Your task to perform on an android device: Go to Yahoo.com Image 0: 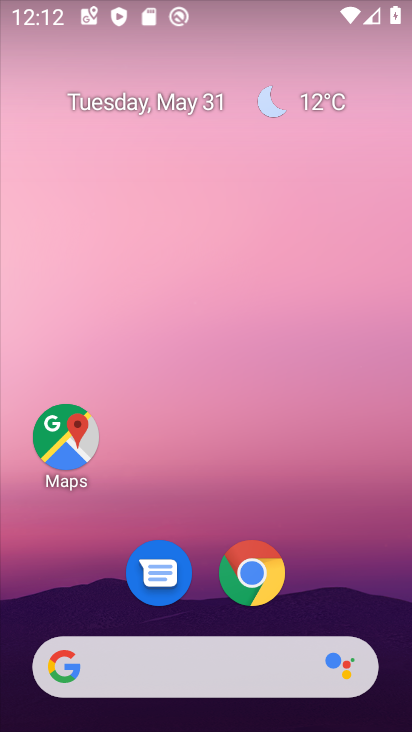
Step 0: drag from (318, 425) to (259, 79)
Your task to perform on an android device: Go to Yahoo.com Image 1: 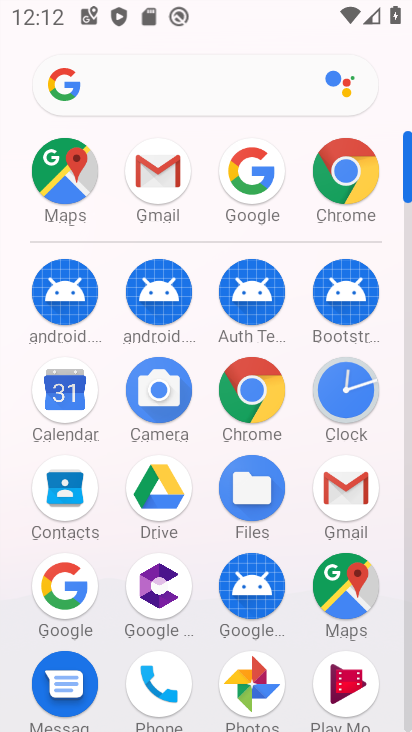
Step 1: click (361, 188)
Your task to perform on an android device: Go to Yahoo.com Image 2: 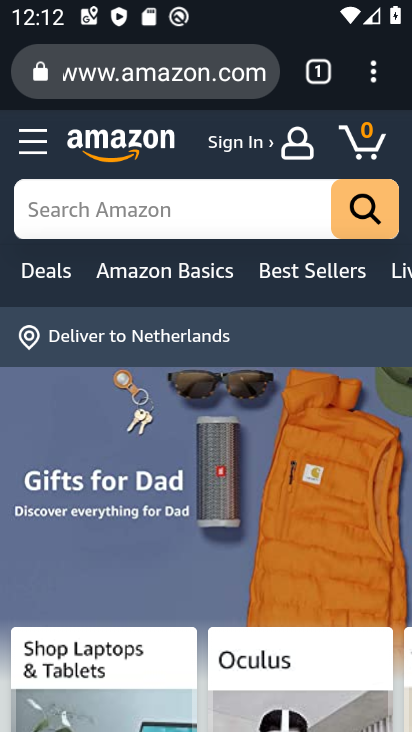
Step 2: click (262, 84)
Your task to perform on an android device: Go to Yahoo.com Image 3: 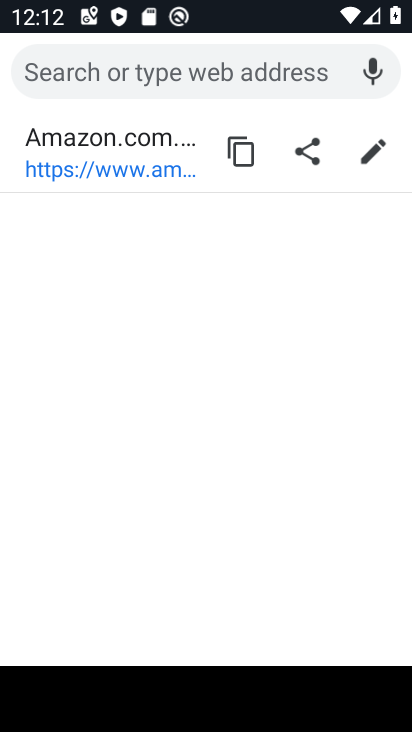
Step 3: type "yahoo"
Your task to perform on an android device: Go to Yahoo.com Image 4: 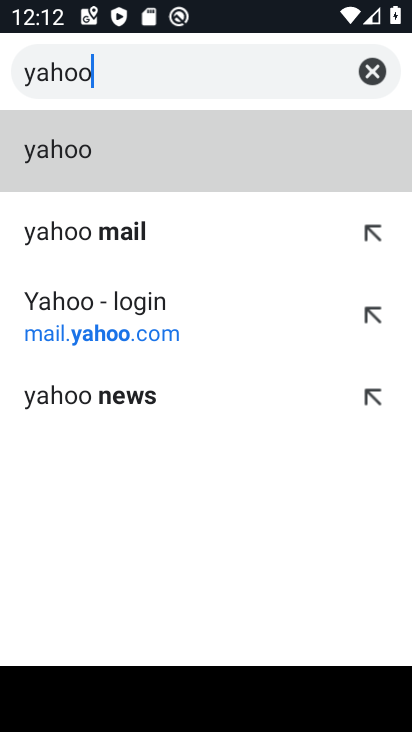
Step 4: click (73, 246)
Your task to perform on an android device: Go to Yahoo.com Image 5: 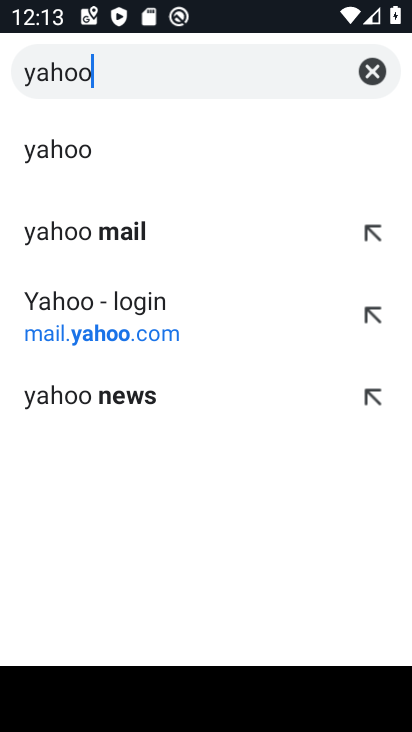
Step 5: click (101, 313)
Your task to perform on an android device: Go to Yahoo.com Image 6: 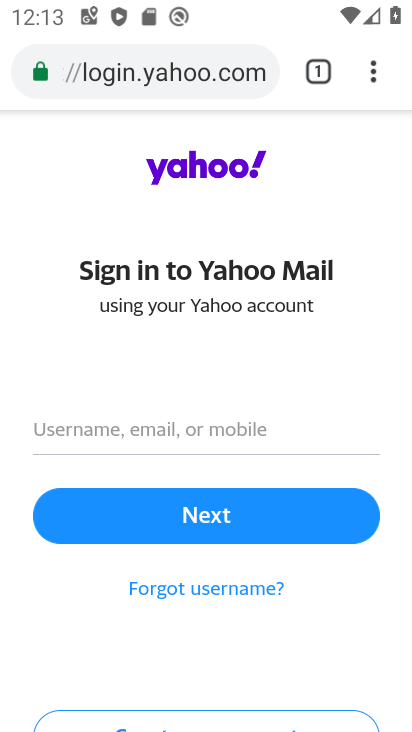
Step 6: task complete